Your task to perform on an android device: read, delete, or share a saved page in the chrome app Image 0: 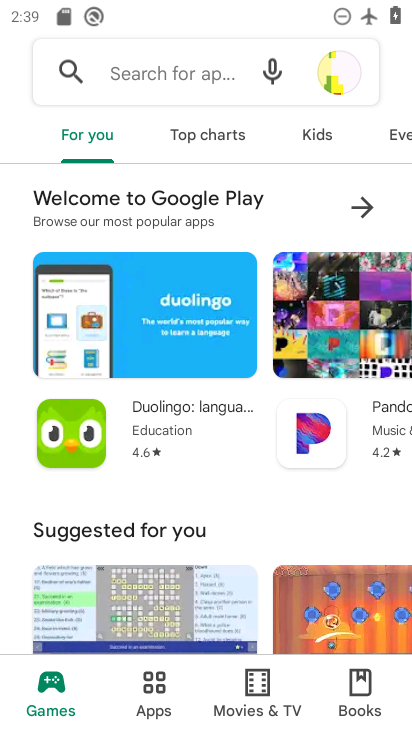
Step 0: drag from (264, 604) to (267, 291)
Your task to perform on an android device: read, delete, or share a saved page in the chrome app Image 1: 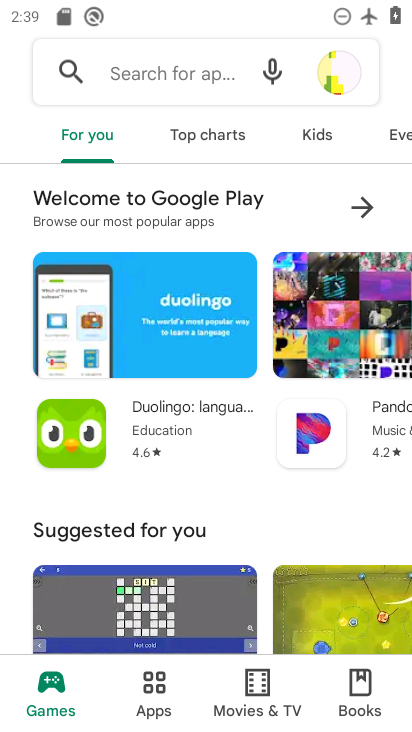
Step 1: drag from (267, 597) to (304, 271)
Your task to perform on an android device: read, delete, or share a saved page in the chrome app Image 2: 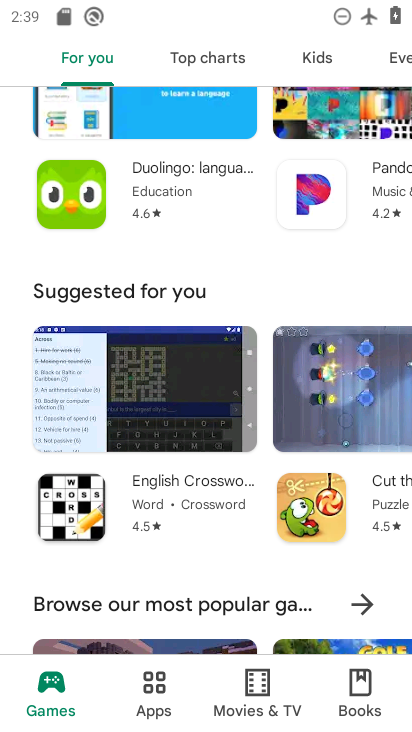
Step 2: press home button
Your task to perform on an android device: read, delete, or share a saved page in the chrome app Image 3: 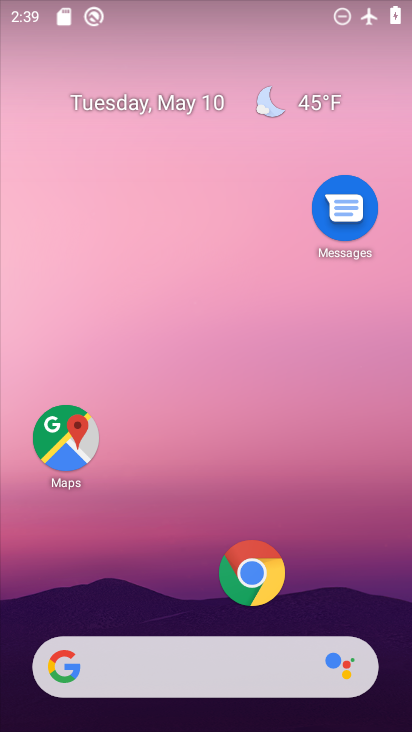
Step 3: drag from (205, 601) to (228, 203)
Your task to perform on an android device: read, delete, or share a saved page in the chrome app Image 4: 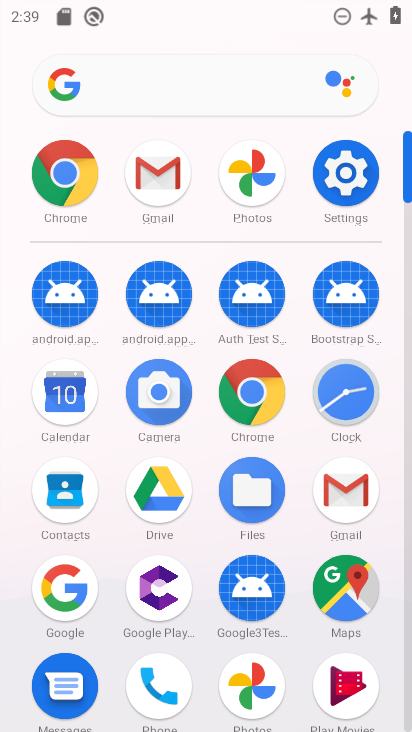
Step 4: drag from (200, 659) to (161, 243)
Your task to perform on an android device: read, delete, or share a saved page in the chrome app Image 5: 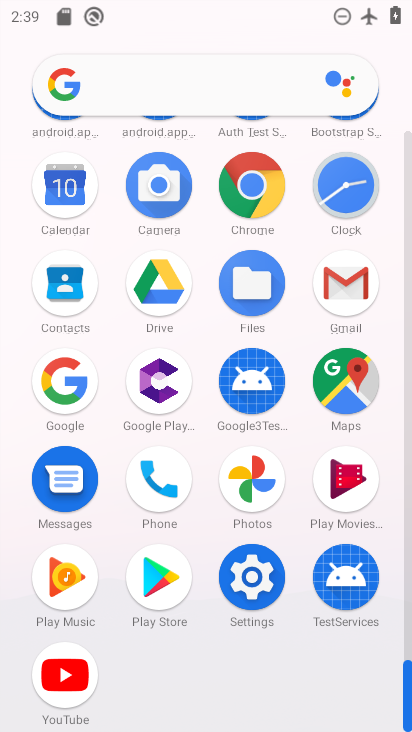
Step 5: click (252, 169)
Your task to perform on an android device: read, delete, or share a saved page in the chrome app Image 6: 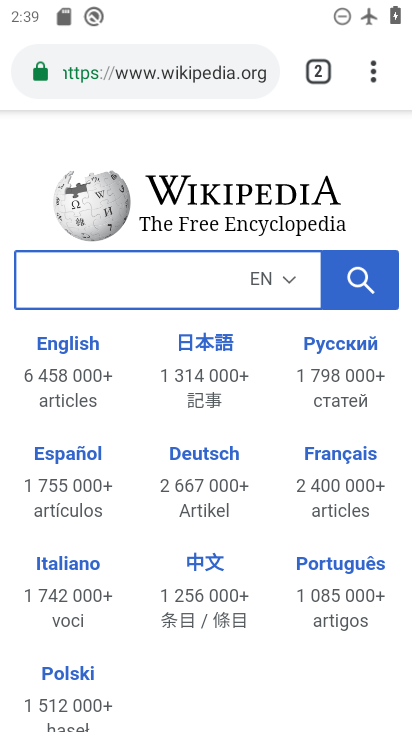
Step 6: drag from (381, 57) to (187, 259)
Your task to perform on an android device: read, delete, or share a saved page in the chrome app Image 7: 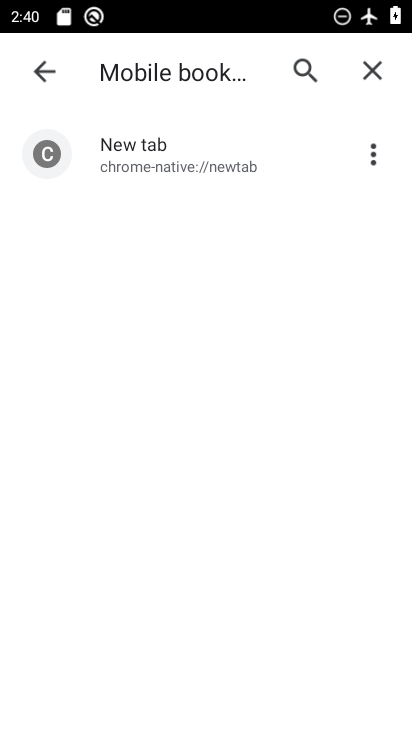
Step 7: drag from (122, 561) to (145, 208)
Your task to perform on an android device: read, delete, or share a saved page in the chrome app Image 8: 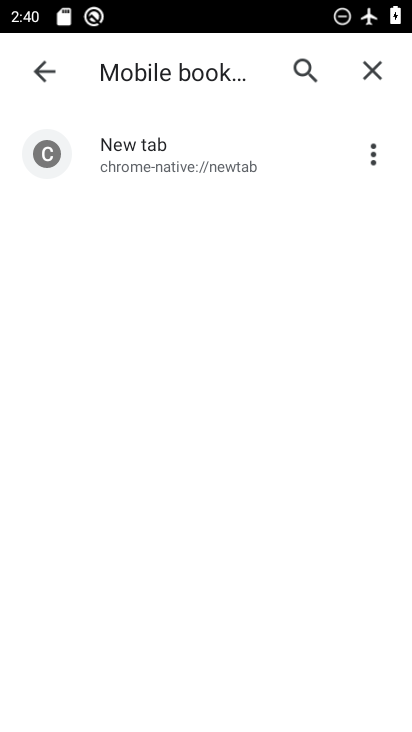
Step 8: click (170, 441)
Your task to perform on an android device: read, delete, or share a saved page in the chrome app Image 9: 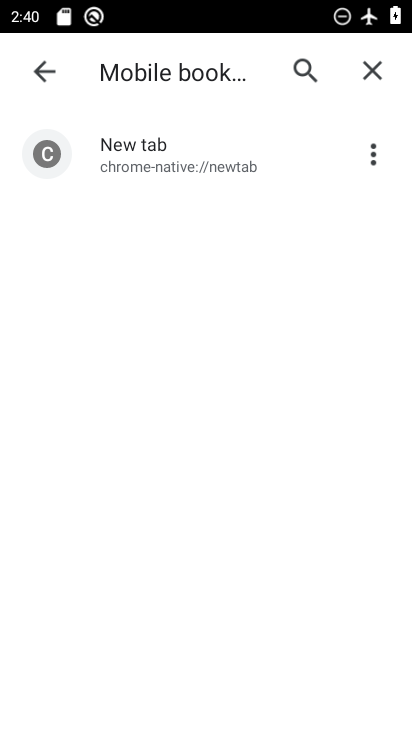
Step 9: click (373, 150)
Your task to perform on an android device: read, delete, or share a saved page in the chrome app Image 10: 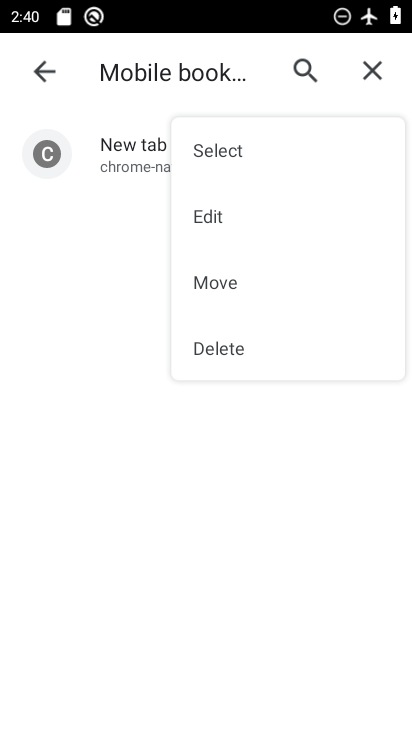
Step 10: click (114, 288)
Your task to perform on an android device: read, delete, or share a saved page in the chrome app Image 11: 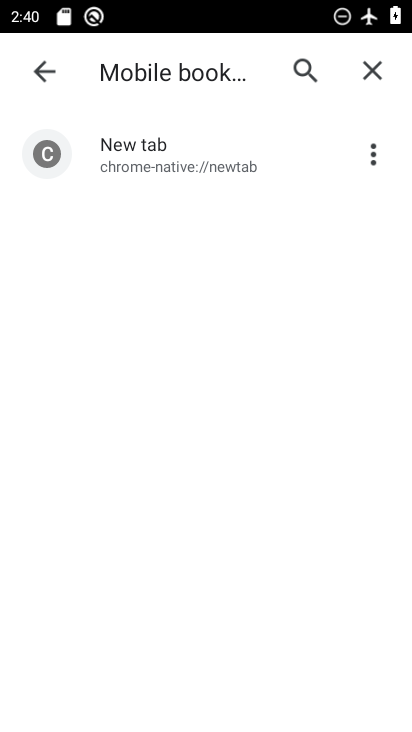
Step 11: click (369, 154)
Your task to perform on an android device: read, delete, or share a saved page in the chrome app Image 12: 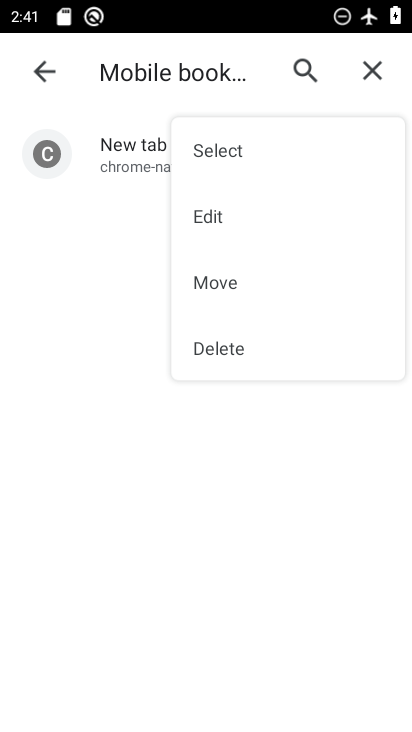
Step 12: click (61, 208)
Your task to perform on an android device: read, delete, or share a saved page in the chrome app Image 13: 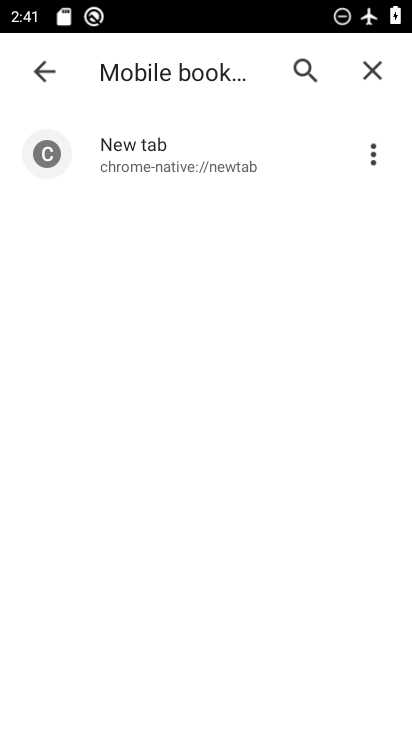
Step 13: task complete